Your task to perform on an android device: empty trash in google photos Image 0: 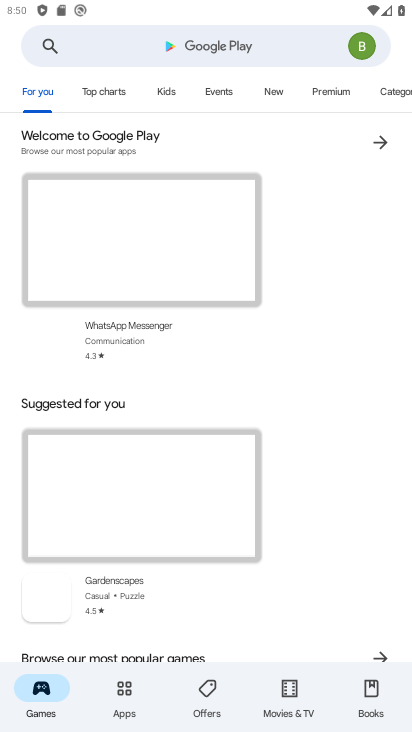
Step 0: press home button
Your task to perform on an android device: empty trash in google photos Image 1: 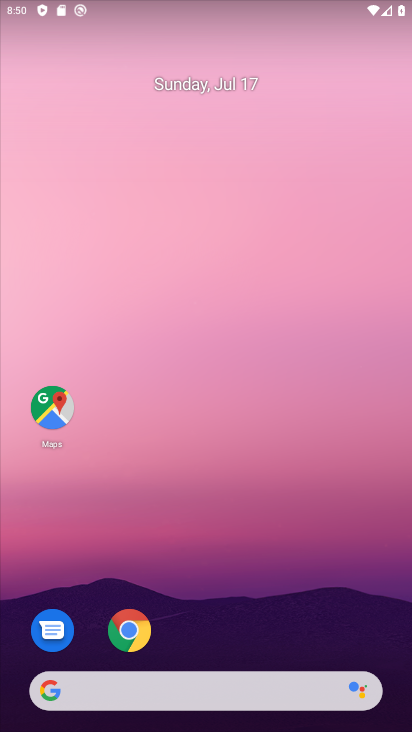
Step 1: drag from (177, 644) to (235, 106)
Your task to perform on an android device: empty trash in google photos Image 2: 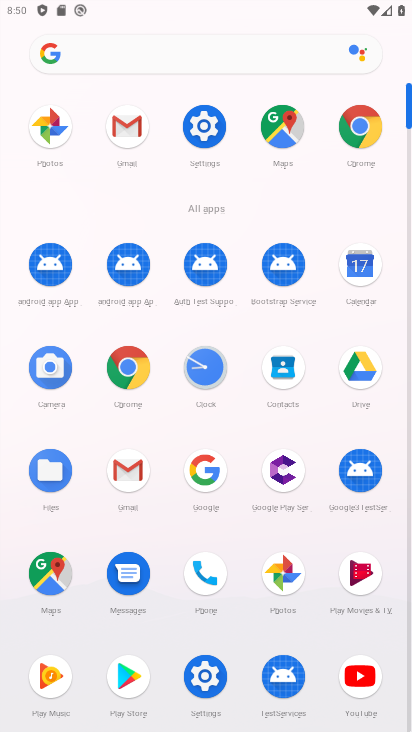
Step 2: click (270, 591)
Your task to perform on an android device: empty trash in google photos Image 3: 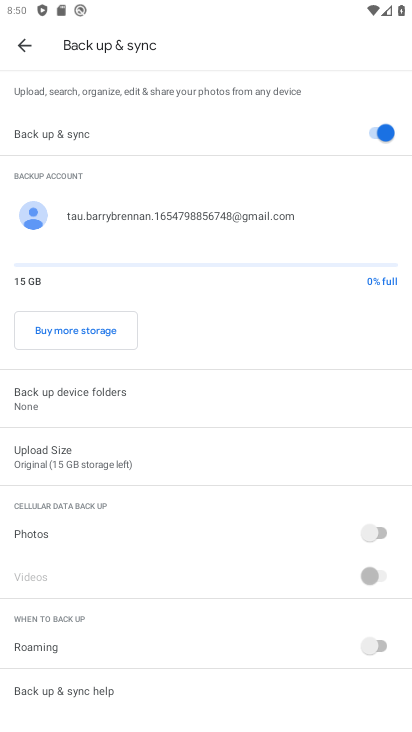
Step 3: press back button
Your task to perform on an android device: empty trash in google photos Image 4: 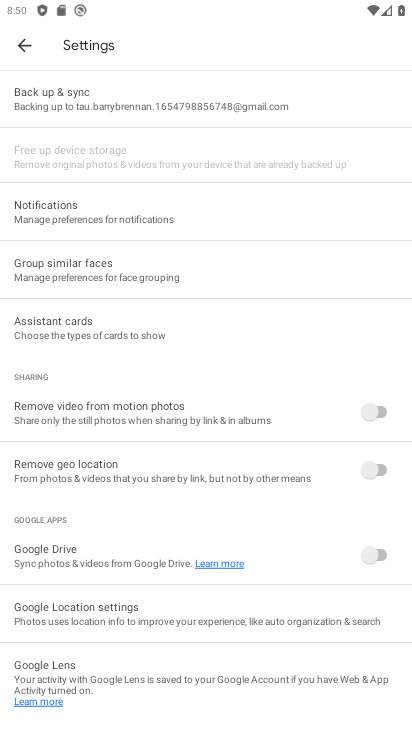
Step 4: press back button
Your task to perform on an android device: empty trash in google photos Image 5: 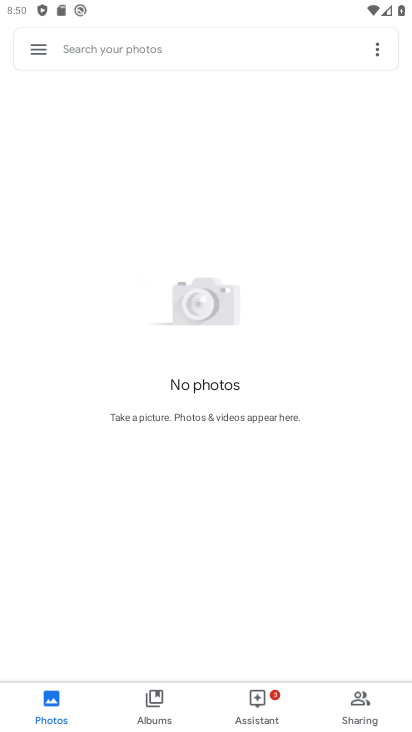
Step 5: click (45, 51)
Your task to perform on an android device: empty trash in google photos Image 6: 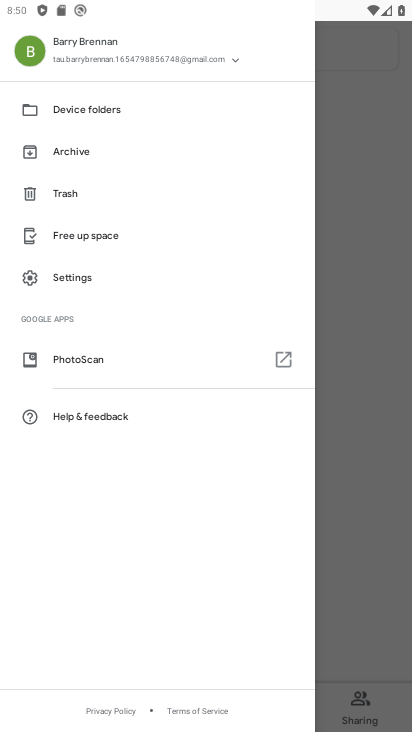
Step 6: click (107, 195)
Your task to perform on an android device: empty trash in google photos Image 7: 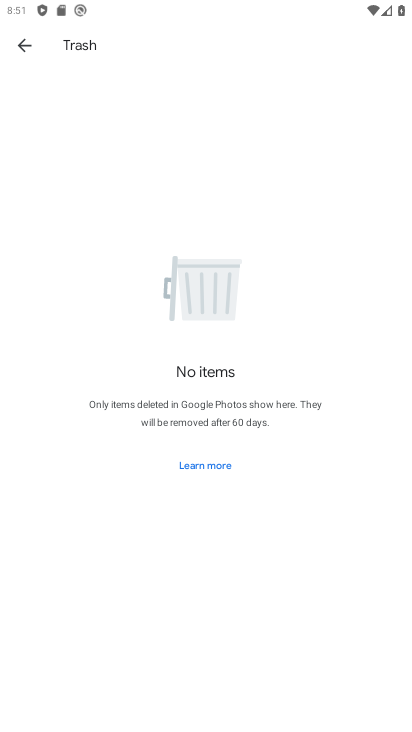
Step 7: task complete